Your task to perform on an android device: turn on notifications settings in the gmail app Image 0: 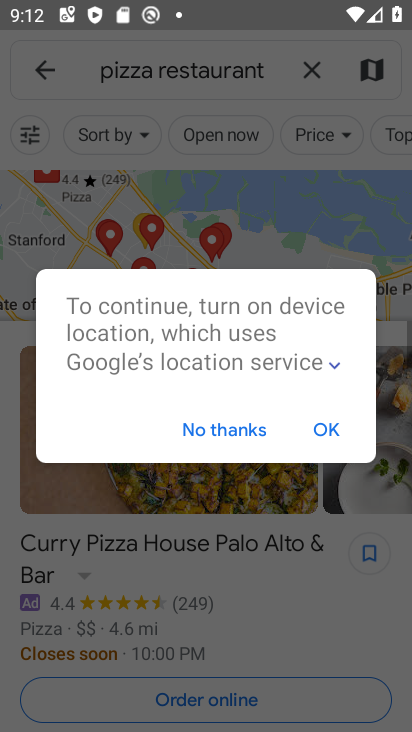
Step 0: press home button
Your task to perform on an android device: turn on notifications settings in the gmail app Image 1: 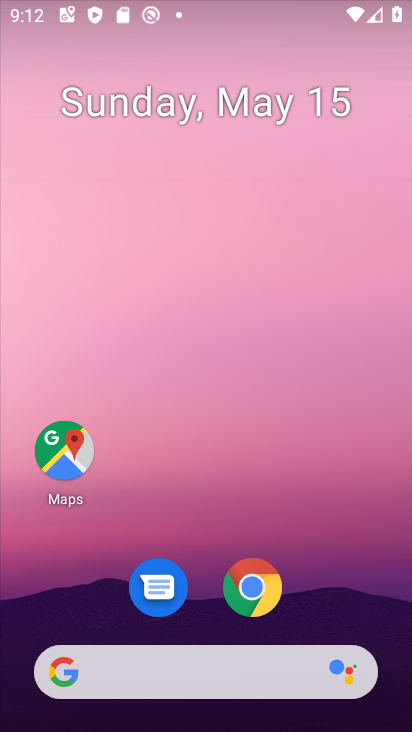
Step 1: drag from (402, 690) to (299, 133)
Your task to perform on an android device: turn on notifications settings in the gmail app Image 2: 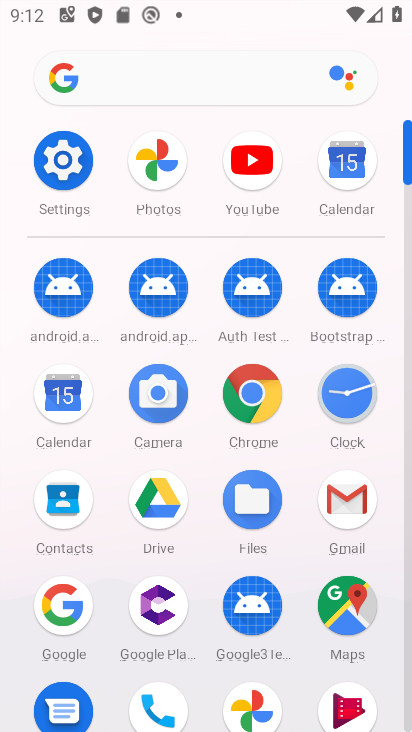
Step 2: click (330, 494)
Your task to perform on an android device: turn on notifications settings in the gmail app Image 3: 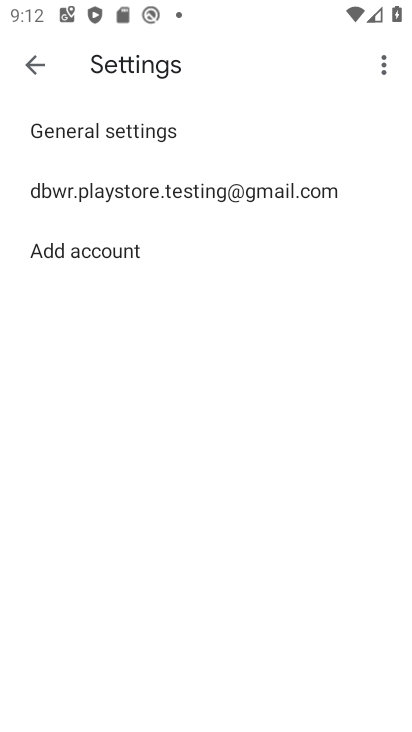
Step 3: click (159, 176)
Your task to perform on an android device: turn on notifications settings in the gmail app Image 4: 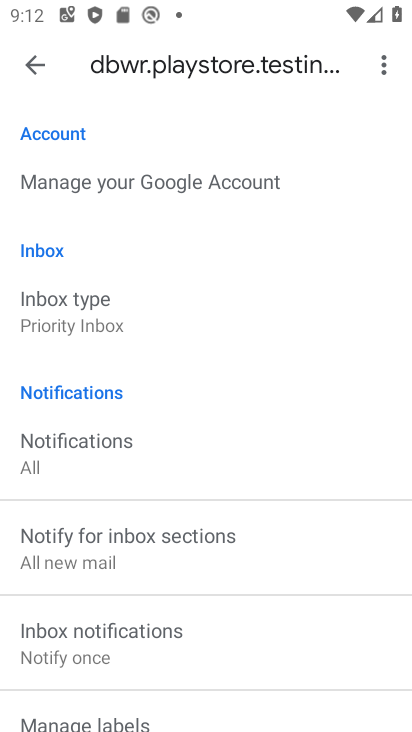
Step 4: click (72, 465)
Your task to perform on an android device: turn on notifications settings in the gmail app Image 5: 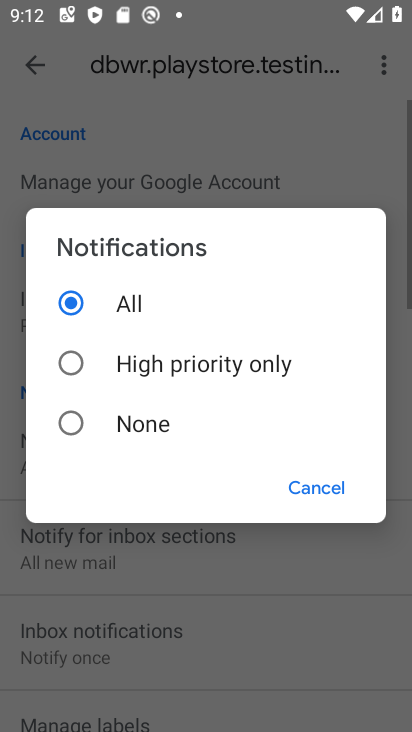
Step 5: click (129, 305)
Your task to perform on an android device: turn on notifications settings in the gmail app Image 6: 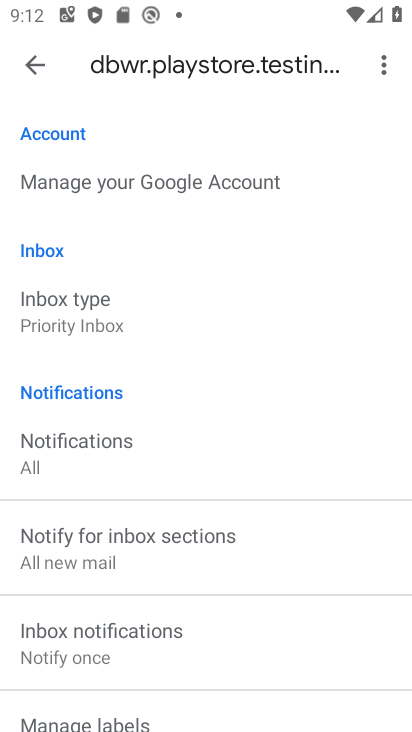
Step 6: task complete